Your task to perform on an android device: Open calendar and show me the third week of next month Image 0: 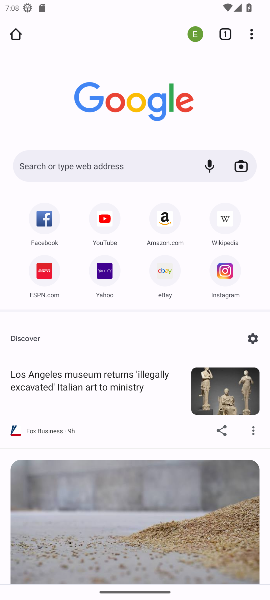
Step 0: press home button
Your task to perform on an android device: Open calendar and show me the third week of next month Image 1: 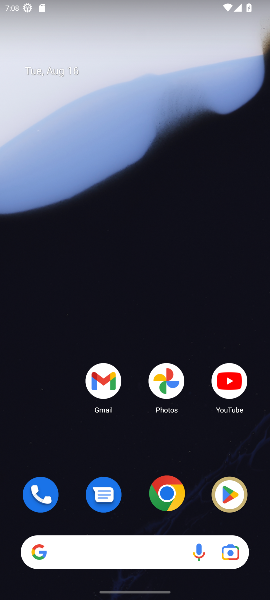
Step 1: task complete